Your task to perform on an android device: move a message to another label in the gmail app Image 0: 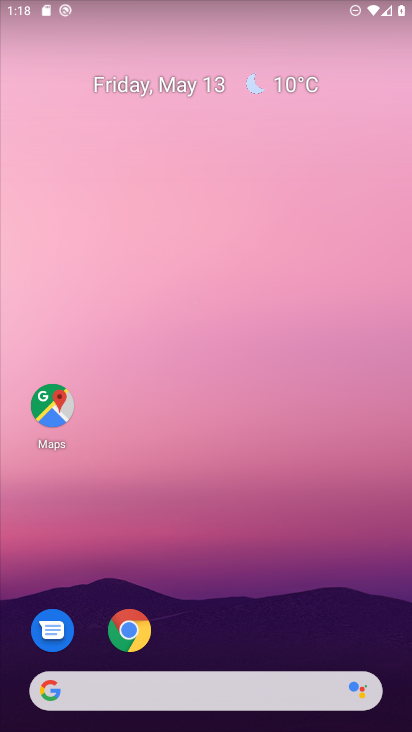
Step 0: drag from (184, 686) to (141, 55)
Your task to perform on an android device: move a message to another label in the gmail app Image 1: 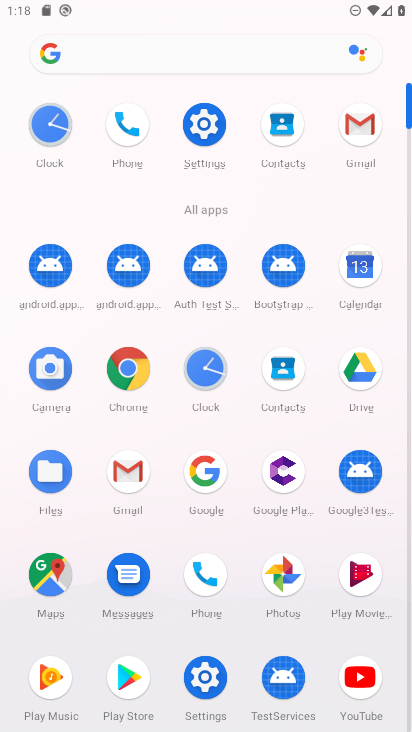
Step 1: click (137, 475)
Your task to perform on an android device: move a message to another label in the gmail app Image 2: 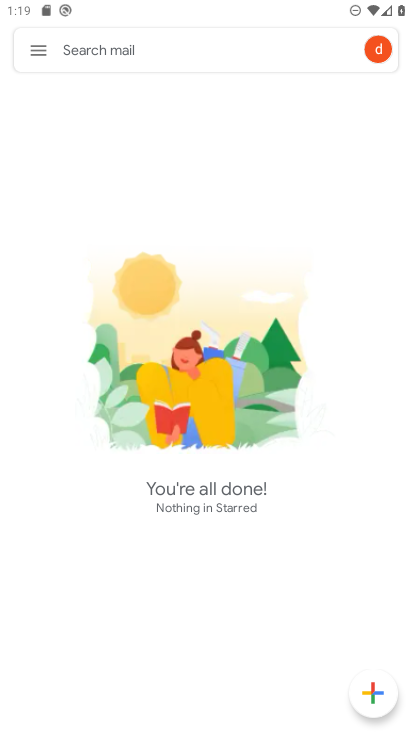
Step 2: click (43, 57)
Your task to perform on an android device: move a message to another label in the gmail app Image 3: 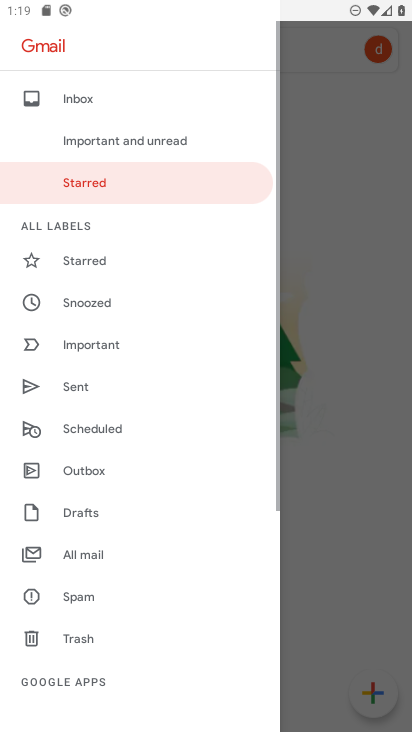
Step 3: click (81, 556)
Your task to perform on an android device: move a message to another label in the gmail app Image 4: 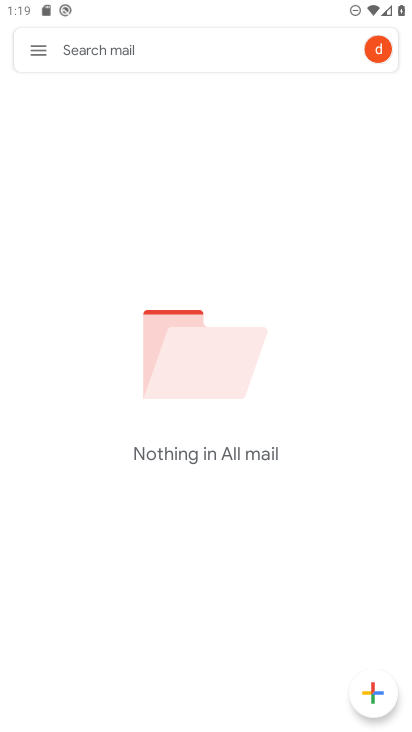
Step 4: task complete